Your task to perform on an android device: stop showing notifications on the lock screen Image 0: 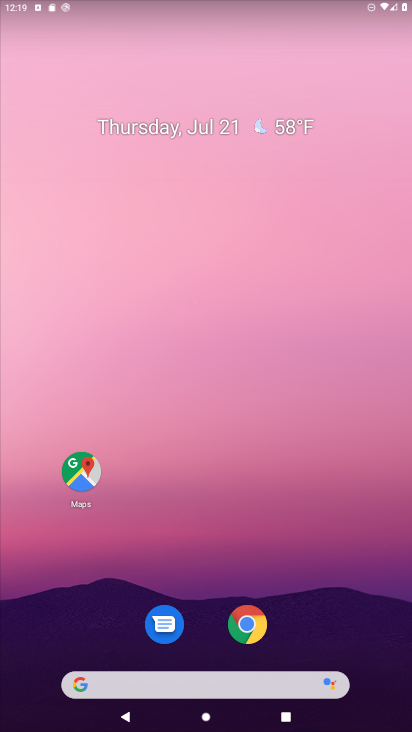
Step 0: drag from (200, 595) to (212, 172)
Your task to perform on an android device: stop showing notifications on the lock screen Image 1: 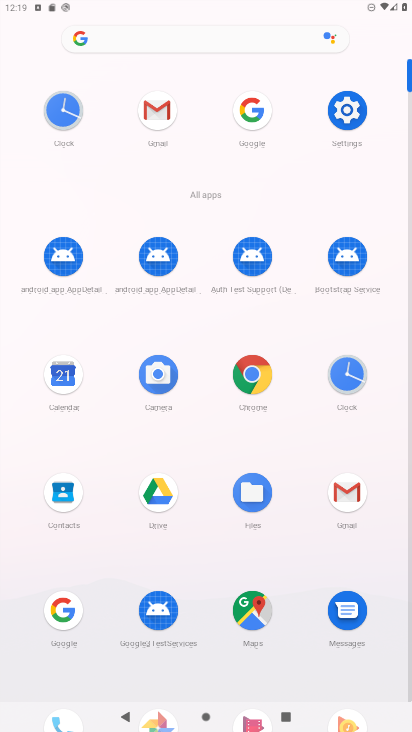
Step 1: click (329, 103)
Your task to perform on an android device: stop showing notifications on the lock screen Image 2: 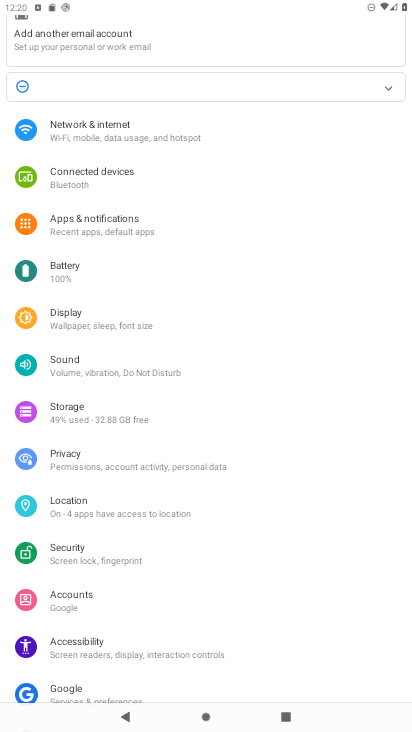
Step 2: click (178, 219)
Your task to perform on an android device: stop showing notifications on the lock screen Image 3: 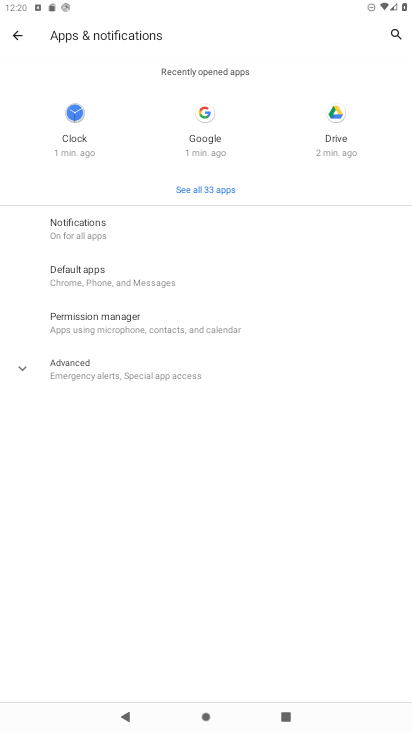
Step 3: click (127, 230)
Your task to perform on an android device: stop showing notifications on the lock screen Image 4: 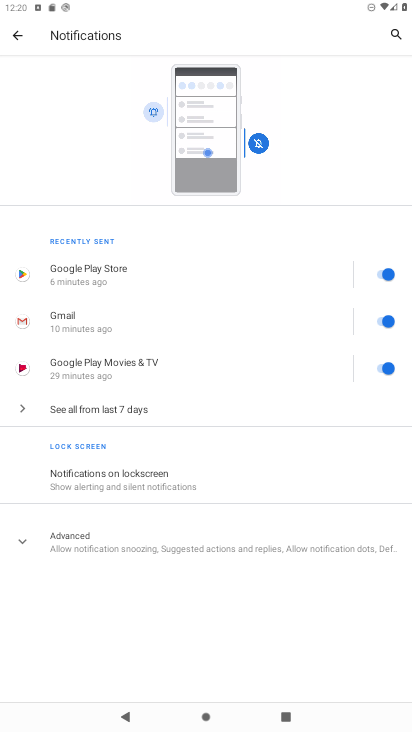
Step 4: click (225, 485)
Your task to perform on an android device: stop showing notifications on the lock screen Image 5: 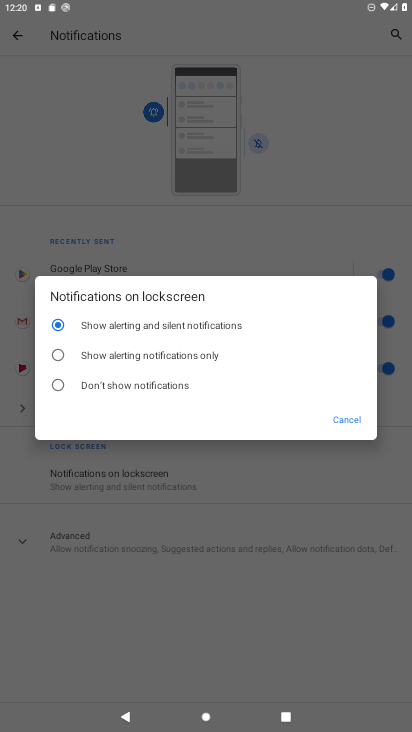
Step 5: click (151, 380)
Your task to perform on an android device: stop showing notifications on the lock screen Image 6: 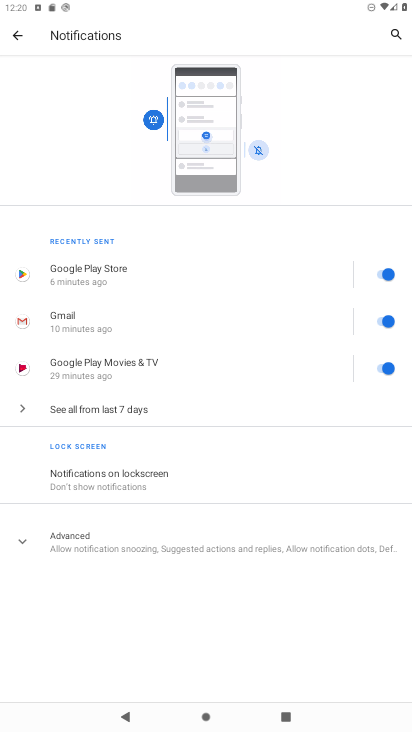
Step 6: task complete